Your task to perform on an android device: turn off picture-in-picture Image 0: 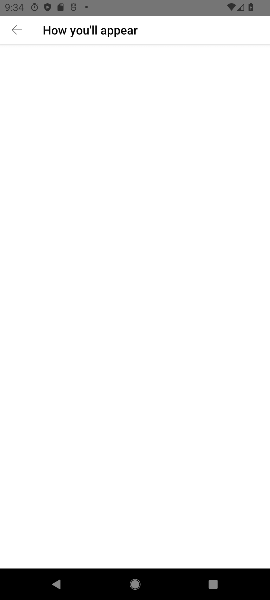
Step 0: press home button
Your task to perform on an android device: turn off picture-in-picture Image 1: 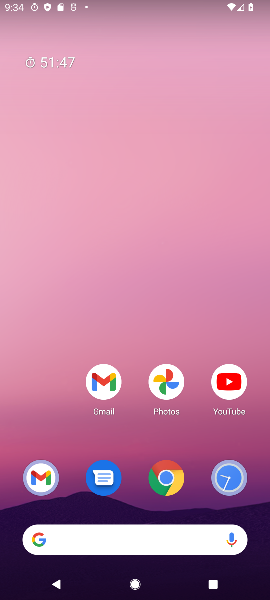
Step 1: click (171, 486)
Your task to perform on an android device: turn off picture-in-picture Image 2: 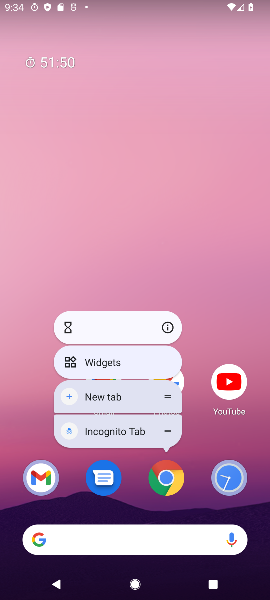
Step 2: click (167, 328)
Your task to perform on an android device: turn off picture-in-picture Image 3: 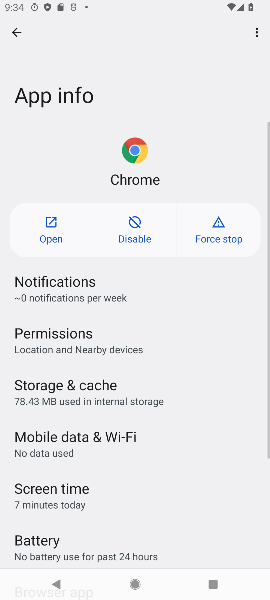
Step 3: drag from (139, 536) to (104, 105)
Your task to perform on an android device: turn off picture-in-picture Image 4: 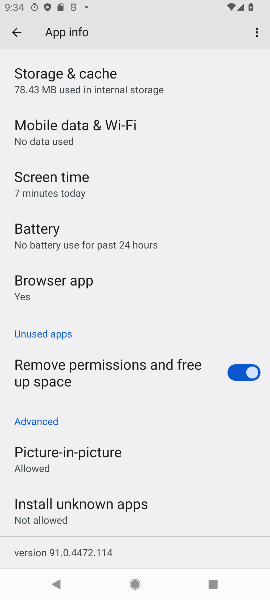
Step 4: click (45, 456)
Your task to perform on an android device: turn off picture-in-picture Image 5: 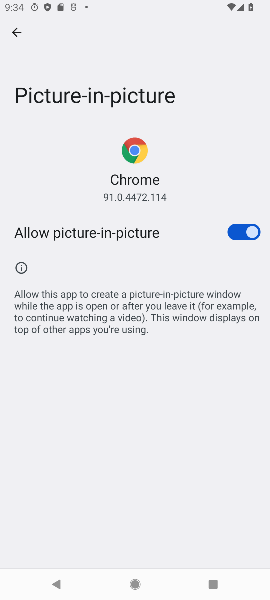
Step 5: click (214, 231)
Your task to perform on an android device: turn off picture-in-picture Image 6: 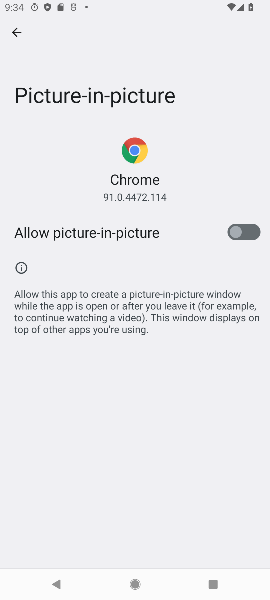
Step 6: task complete